Your task to perform on an android device: Go to Wikipedia Image 0: 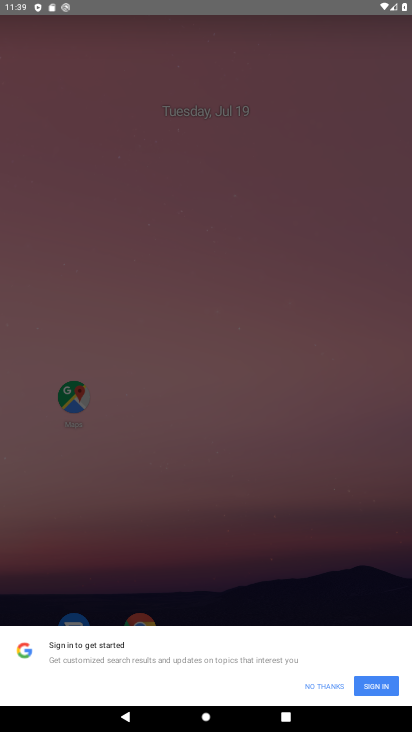
Step 0: press home button
Your task to perform on an android device: Go to Wikipedia Image 1: 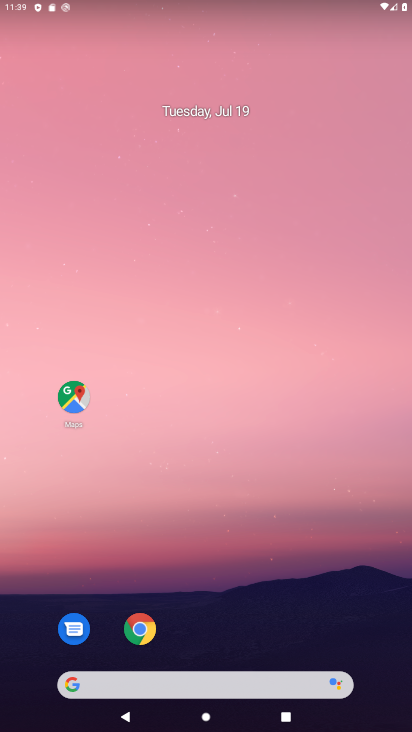
Step 1: click (138, 627)
Your task to perform on an android device: Go to Wikipedia Image 2: 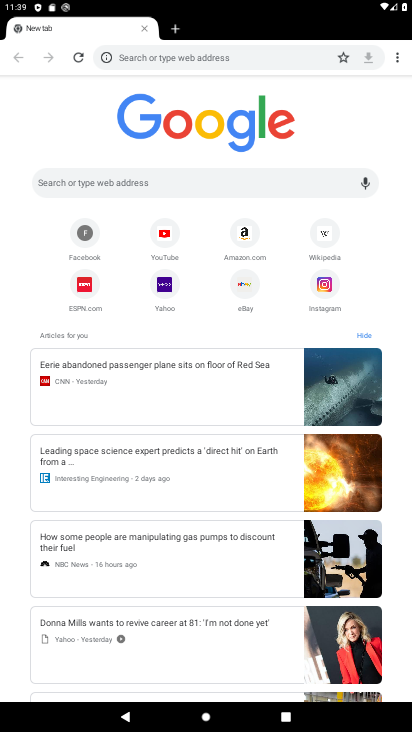
Step 2: click (328, 238)
Your task to perform on an android device: Go to Wikipedia Image 3: 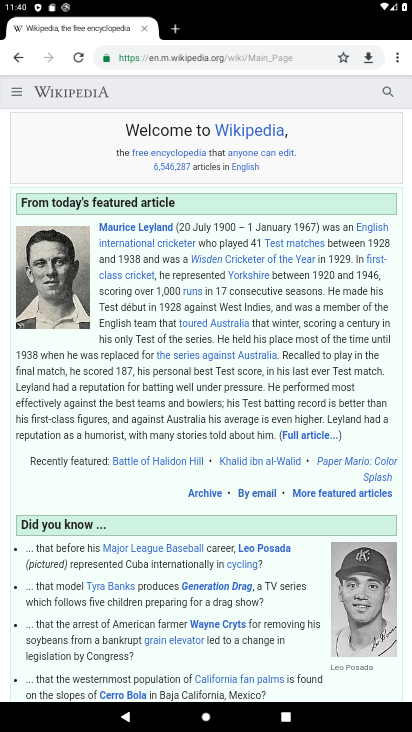
Step 3: task complete